Your task to perform on an android device: open app "Indeed Job Search" (install if not already installed) and go to login screen Image 0: 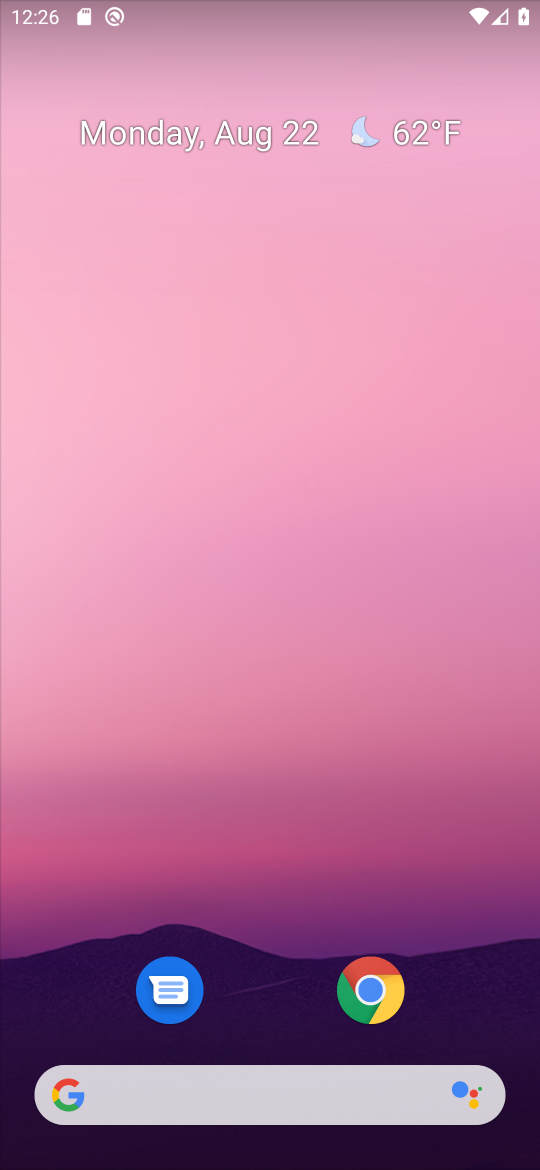
Step 0: drag from (318, 907) to (319, 216)
Your task to perform on an android device: open app "Indeed Job Search" (install if not already installed) and go to login screen Image 1: 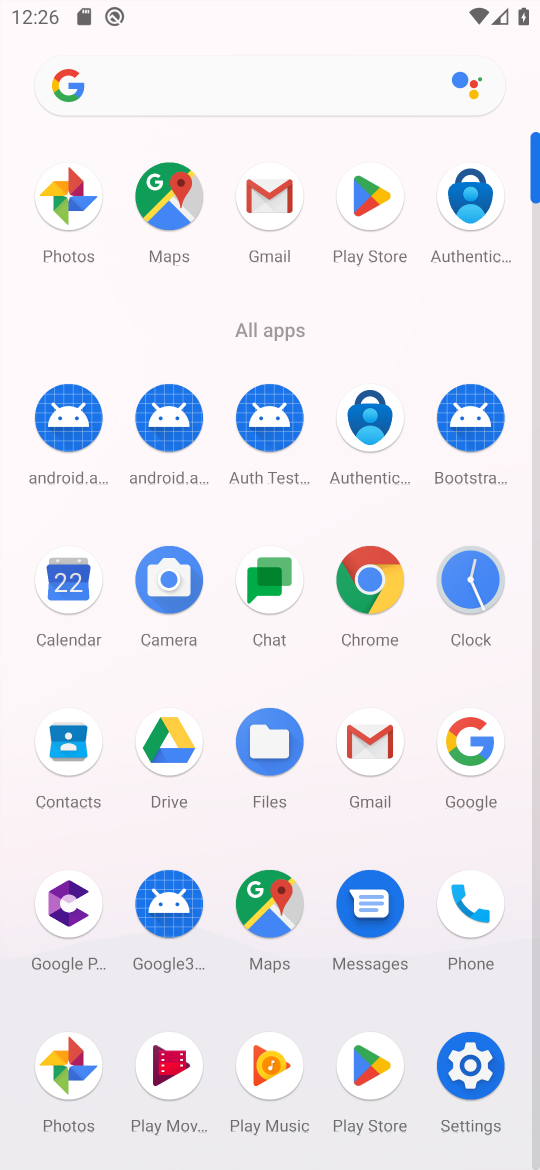
Step 1: click (364, 180)
Your task to perform on an android device: open app "Indeed Job Search" (install if not already installed) and go to login screen Image 2: 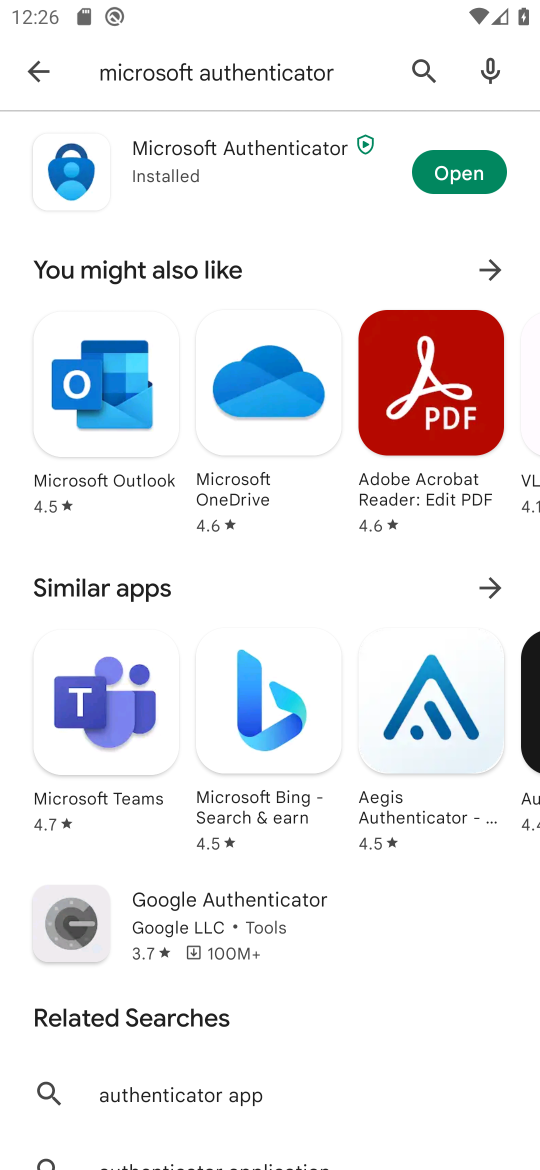
Step 2: click (420, 74)
Your task to perform on an android device: open app "Indeed Job Search" (install if not already installed) and go to login screen Image 3: 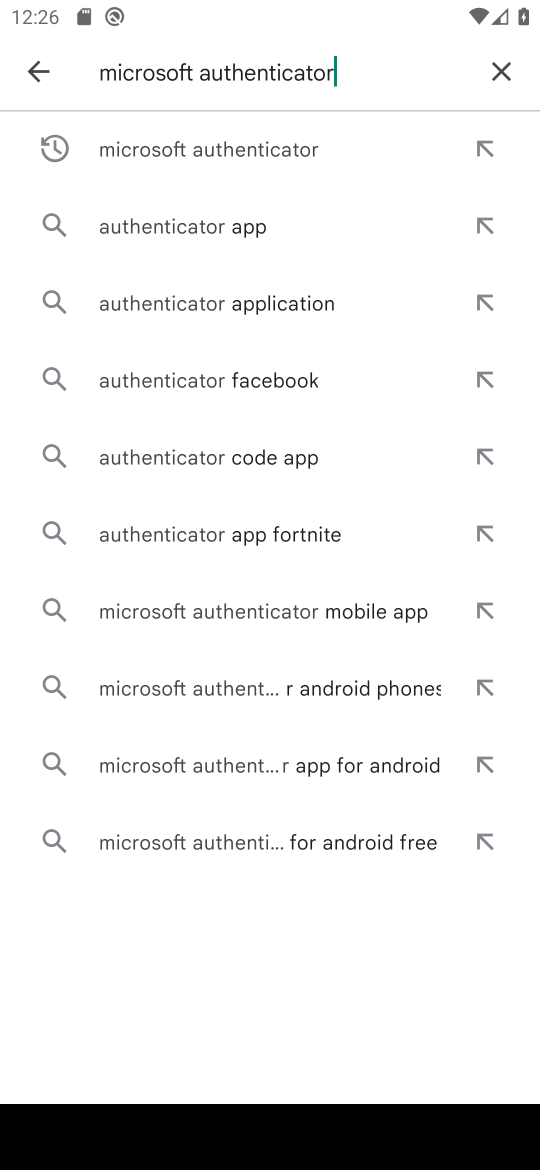
Step 3: click (505, 73)
Your task to perform on an android device: open app "Indeed Job Search" (install if not already installed) and go to login screen Image 4: 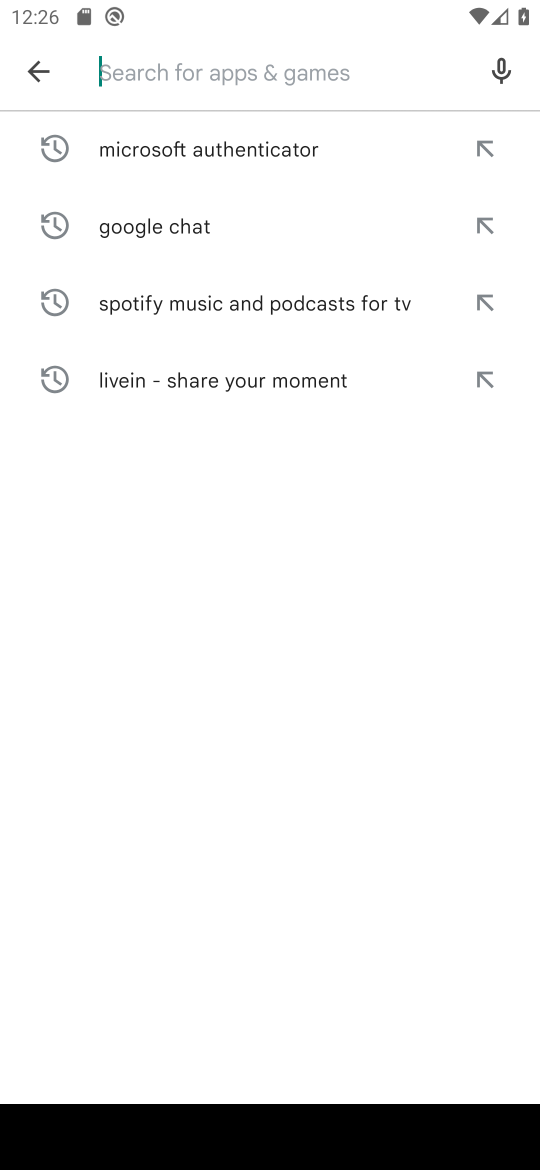
Step 4: type "Indeed Job Search"
Your task to perform on an android device: open app "Indeed Job Search" (install if not already installed) and go to login screen Image 5: 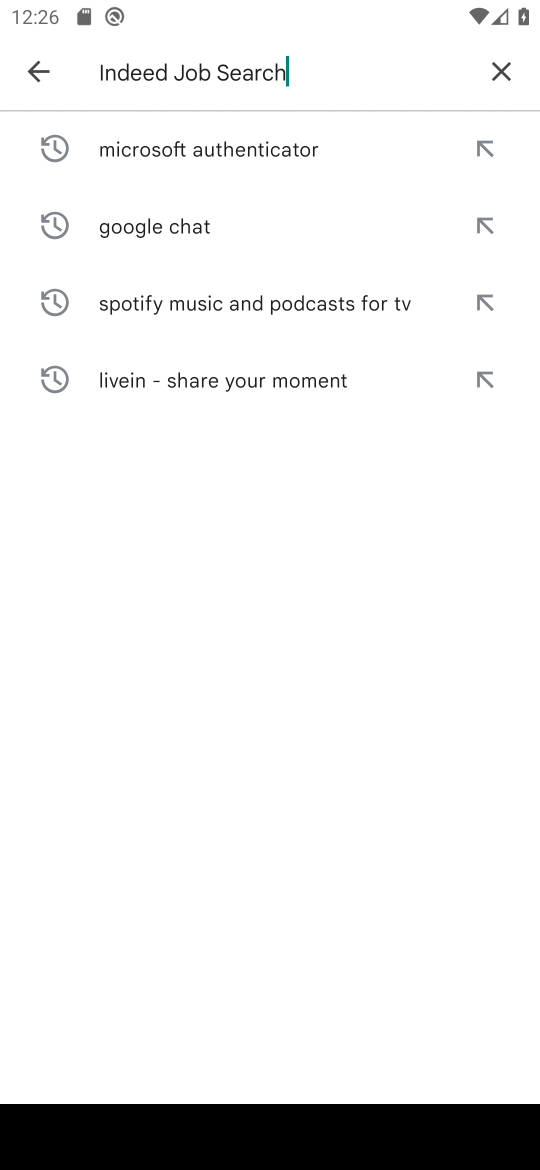
Step 5: type ""
Your task to perform on an android device: open app "Indeed Job Search" (install if not already installed) and go to login screen Image 6: 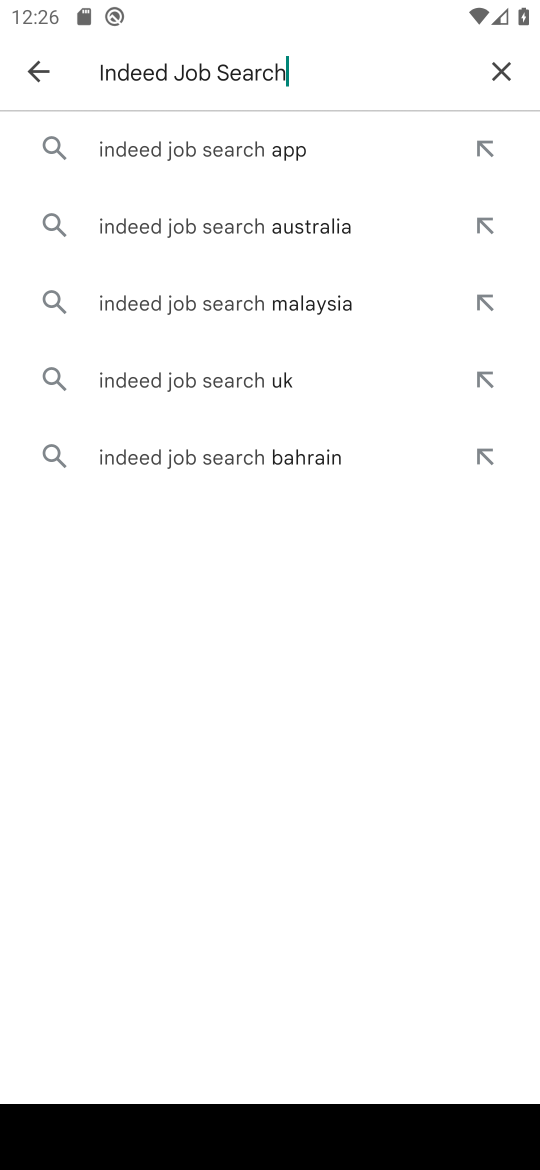
Step 6: click (251, 156)
Your task to perform on an android device: open app "Indeed Job Search" (install if not already installed) and go to login screen Image 7: 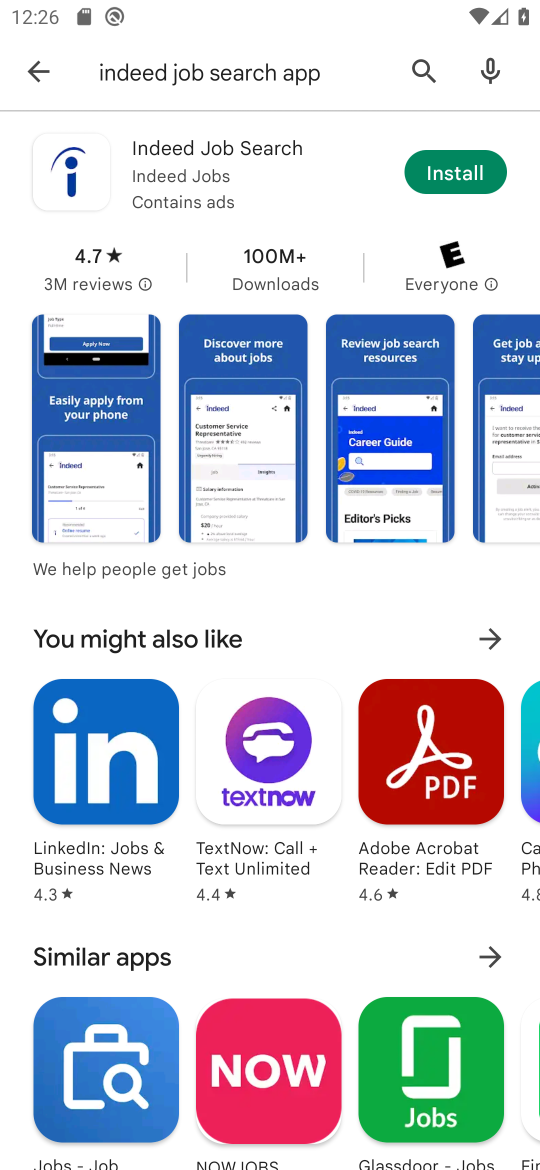
Step 7: click (428, 179)
Your task to perform on an android device: open app "Indeed Job Search" (install if not already installed) and go to login screen Image 8: 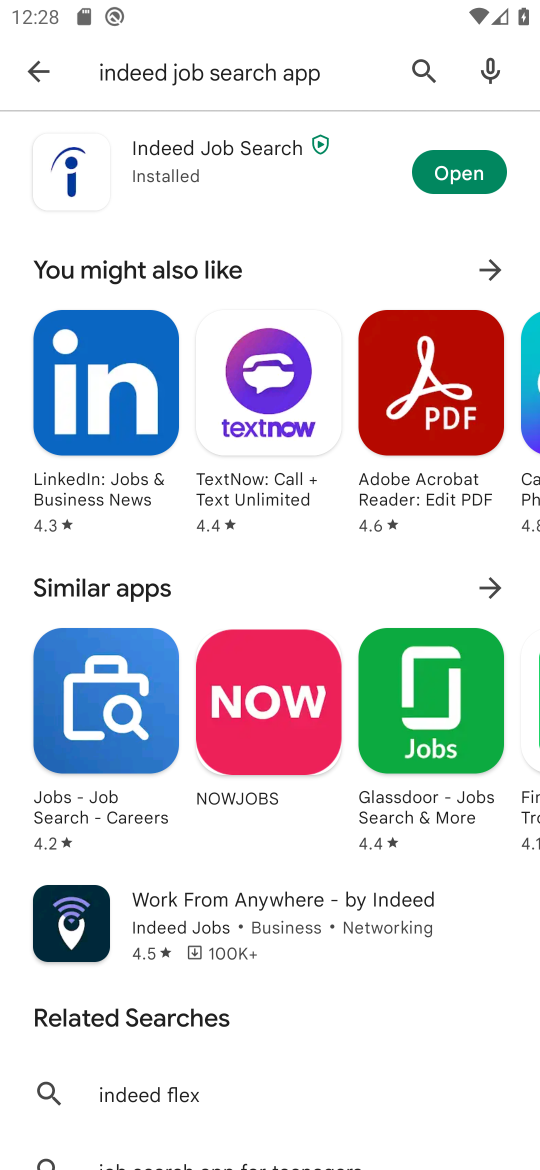
Step 8: click (432, 166)
Your task to perform on an android device: open app "Indeed Job Search" (install if not already installed) and go to login screen Image 9: 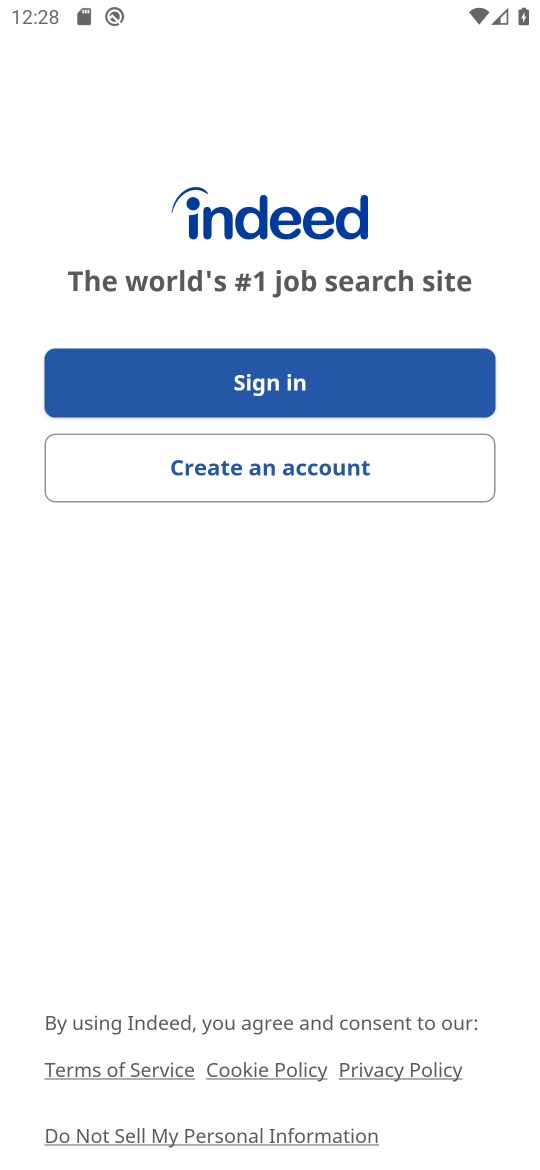
Step 9: task complete